Your task to perform on an android device: Do I have any events this weekend? Image 0: 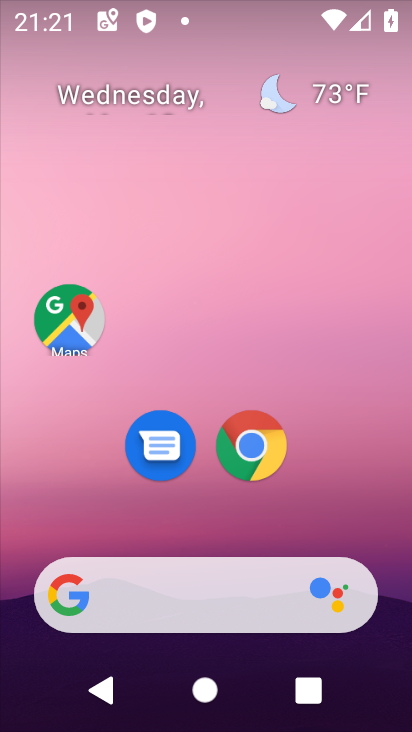
Step 0: drag from (317, 525) to (314, 234)
Your task to perform on an android device: Do I have any events this weekend? Image 1: 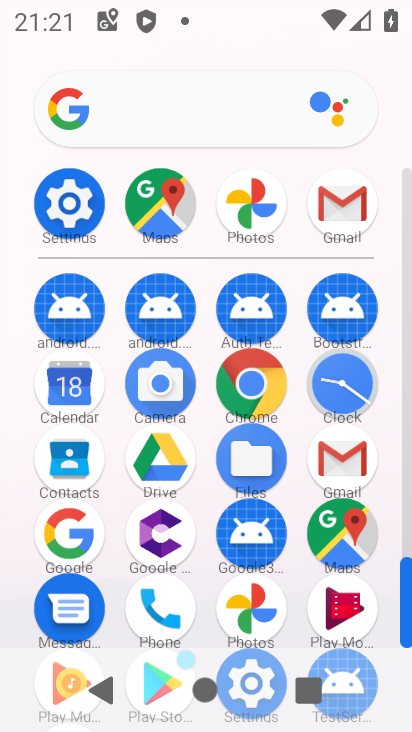
Step 1: click (58, 381)
Your task to perform on an android device: Do I have any events this weekend? Image 2: 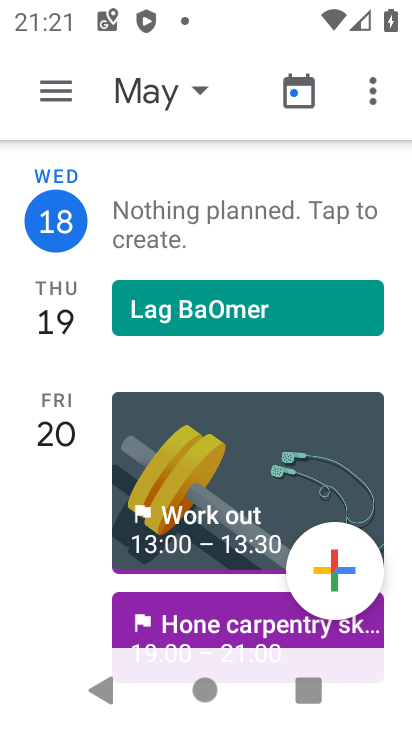
Step 2: click (57, 91)
Your task to perform on an android device: Do I have any events this weekend? Image 3: 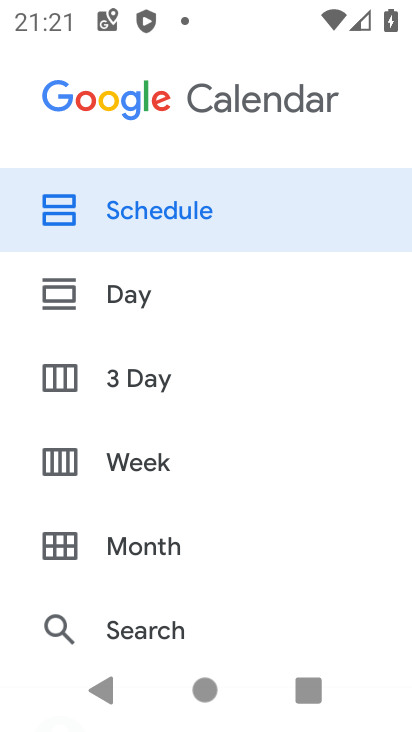
Step 3: click (132, 445)
Your task to perform on an android device: Do I have any events this weekend? Image 4: 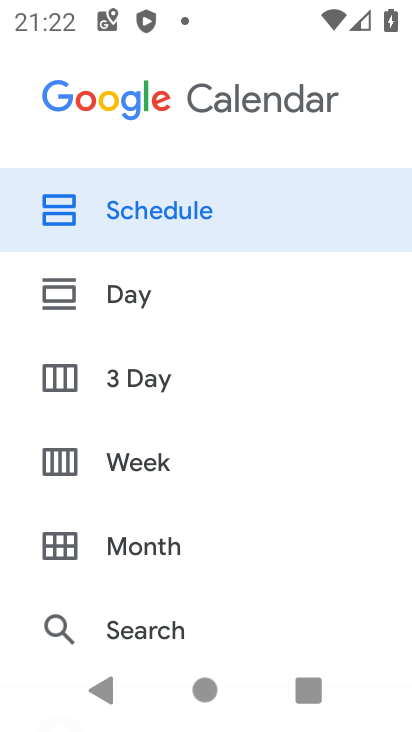
Step 4: click (128, 451)
Your task to perform on an android device: Do I have any events this weekend? Image 5: 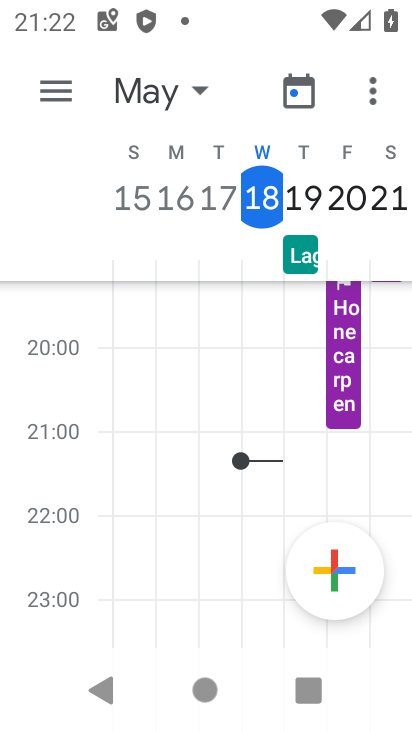
Step 5: click (309, 241)
Your task to perform on an android device: Do I have any events this weekend? Image 6: 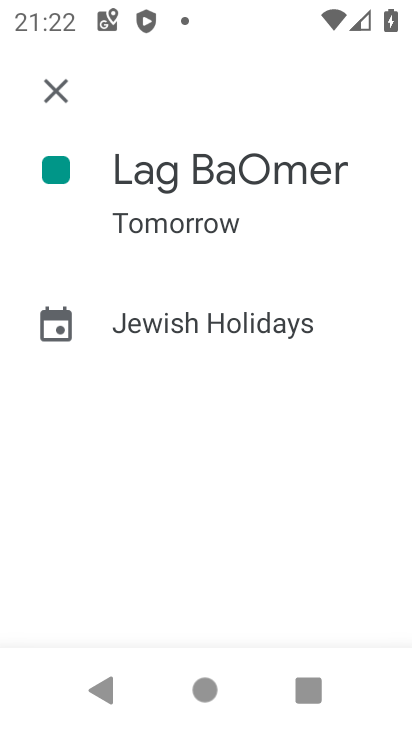
Step 6: click (45, 77)
Your task to perform on an android device: Do I have any events this weekend? Image 7: 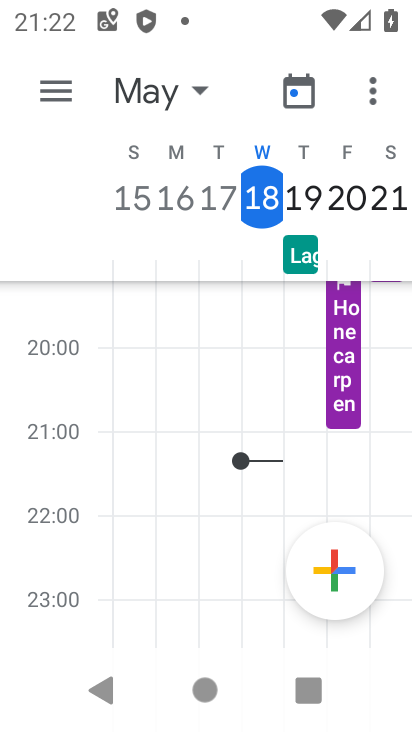
Step 7: task complete